Your task to perform on an android device: turn on sleep mode Image 0: 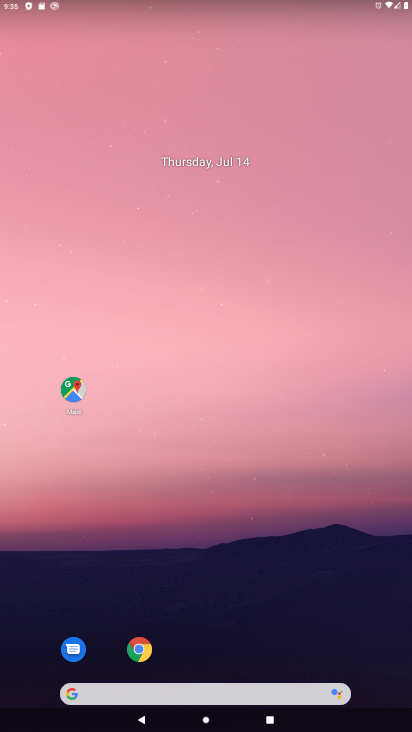
Step 0: drag from (172, 718) to (165, 62)
Your task to perform on an android device: turn on sleep mode Image 1: 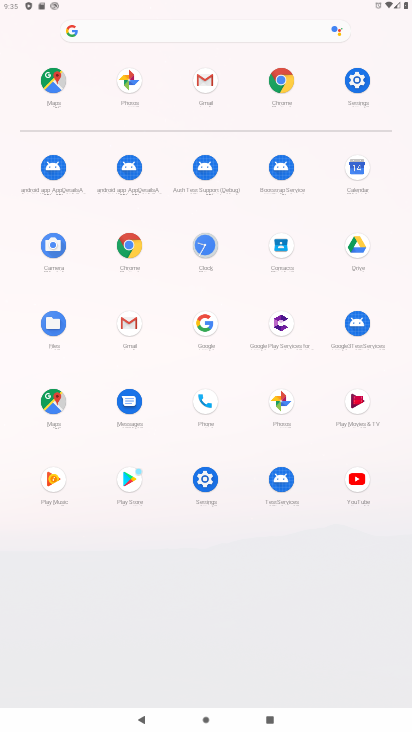
Step 1: click (364, 86)
Your task to perform on an android device: turn on sleep mode Image 2: 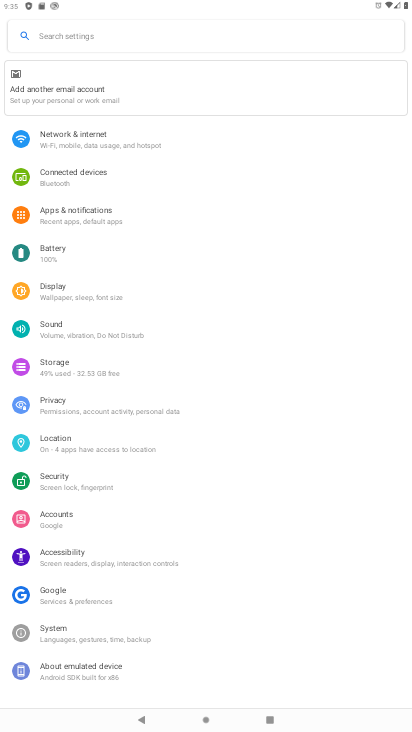
Step 2: click (115, 294)
Your task to perform on an android device: turn on sleep mode Image 3: 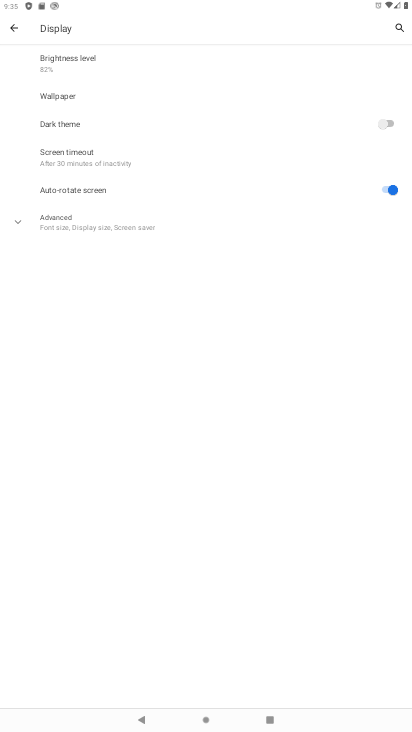
Step 3: task complete